Your task to perform on an android device: see tabs open on other devices in the chrome app Image 0: 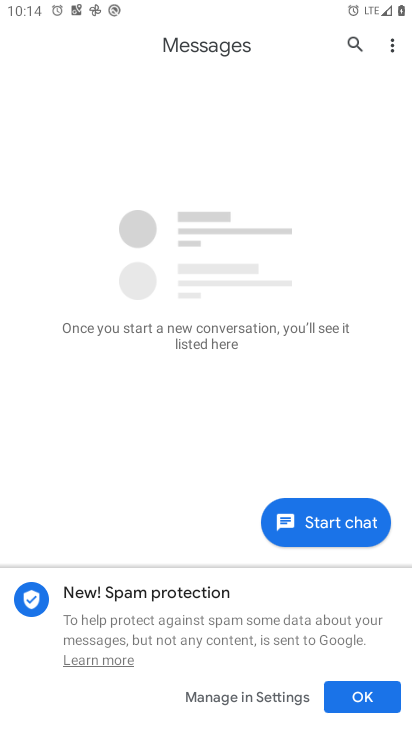
Step 0: press home button
Your task to perform on an android device: see tabs open on other devices in the chrome app Image 1: 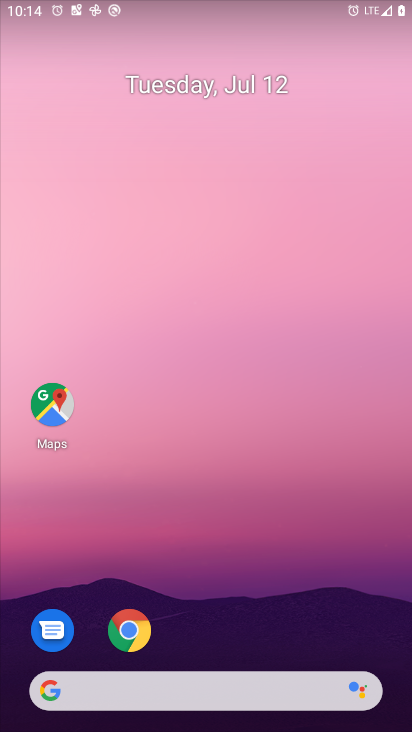
Step 1: click (137, 635)
Your task to perform on an android device: see tabs open on other devices in the chrome app Image 2: 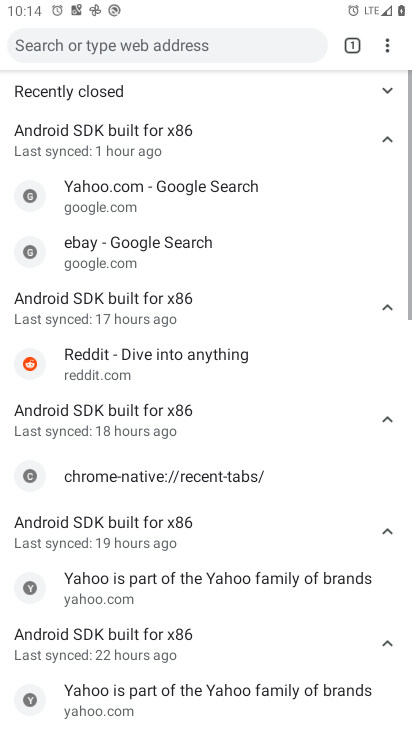
Step 2: task complete